Your task to perform on an android device: open a bookmark in the chrome app Image 0: 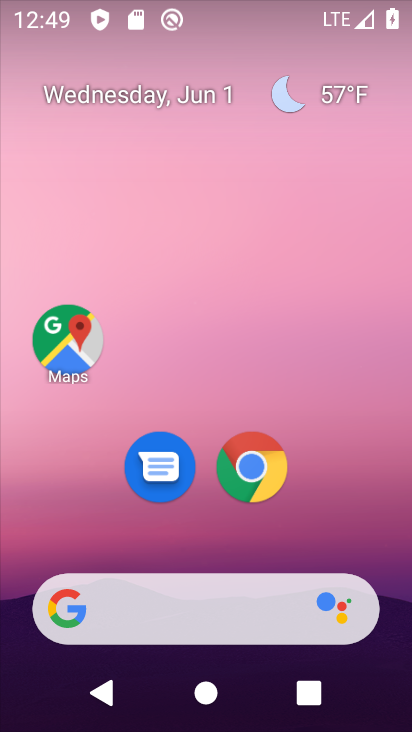
Step 0: drag from (361, 519) to (358, 91)
Your task to perform on an android device: open a bookmark in the chrome app Image 1: 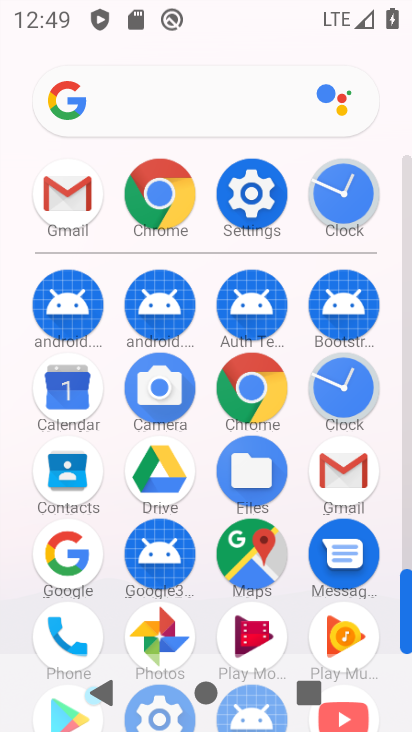
Step 1: click (265, 403)
Your task to perform on an android device: open a bookmark in the chrome app Image 2: 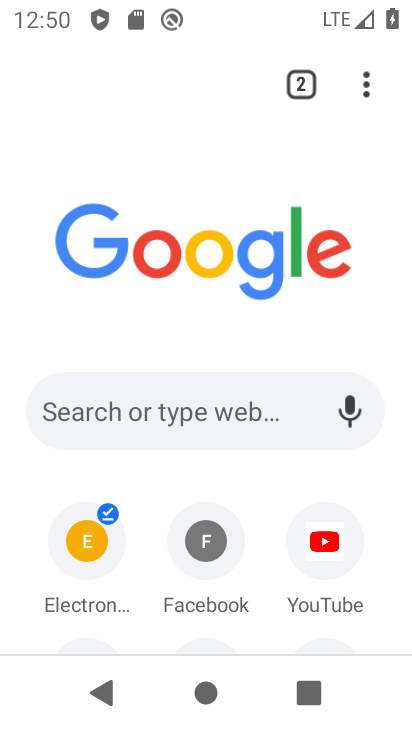
Step 2: click (366, 93)
Your task to perform on an android device: open a bookmark in the chrome app Image 3: 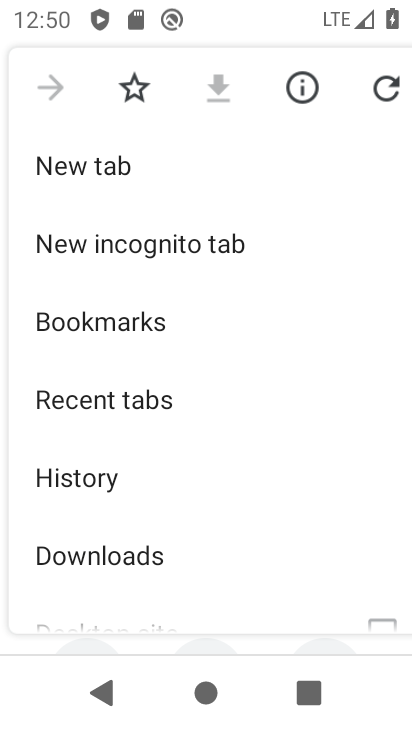
Step 3: click (163, 324)
Your task to perform on an android device: open a bookmark in the chrome app Image 4: 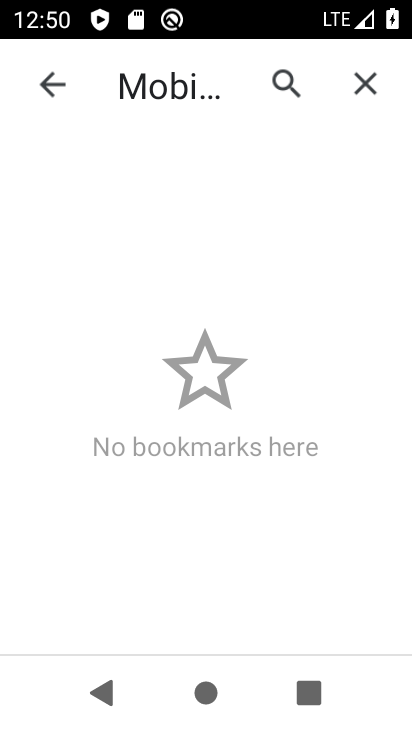
Step 4: task complete